Your task to perform on an android device: find photos in the google photos app Image 0: 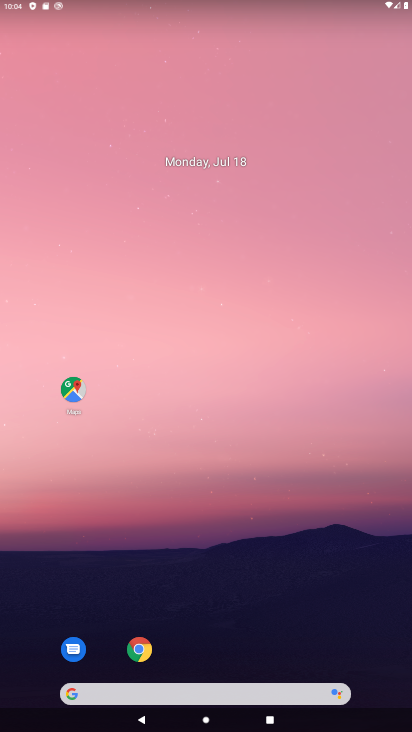
Step 0: drag from (230, 583) to (315, 135)
Your task to perform on an android device: find photos in the google photos app Image 1: 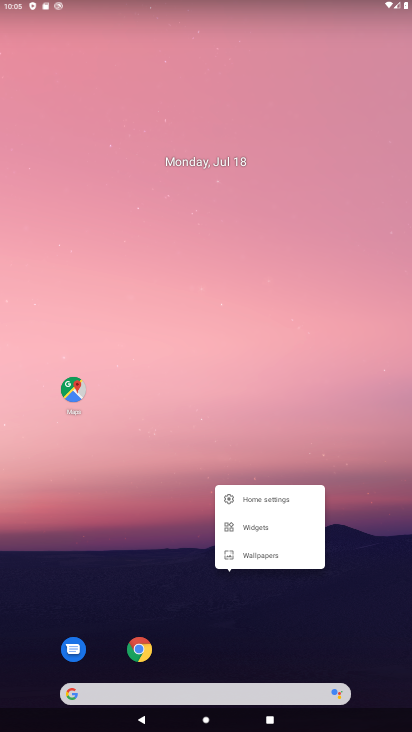
Step 1: click (92, 463)
Your task to perform on an android device: find photos in the google photos app Image 2: 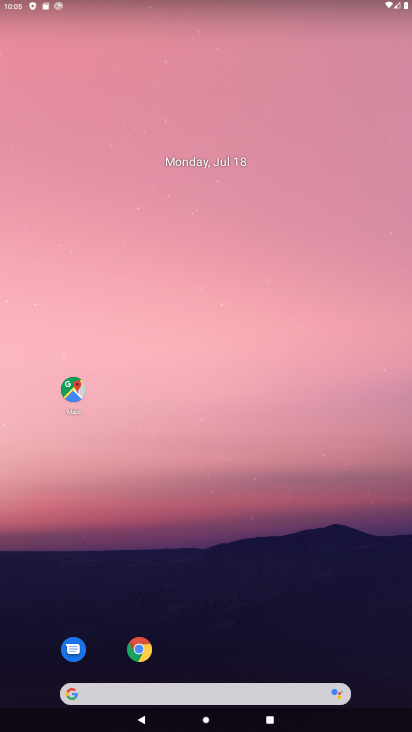
Step 2: drag from (241, 520) to (203, 129)
Your task to perform on an android device: find photos in the google photos app Image 3: 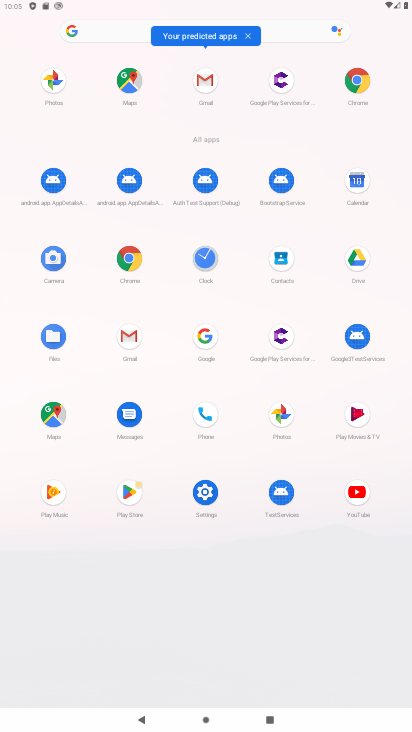
Step 3: click (48, 88)
Your task to perform on an android device: find photos in the google photos app Image 4: 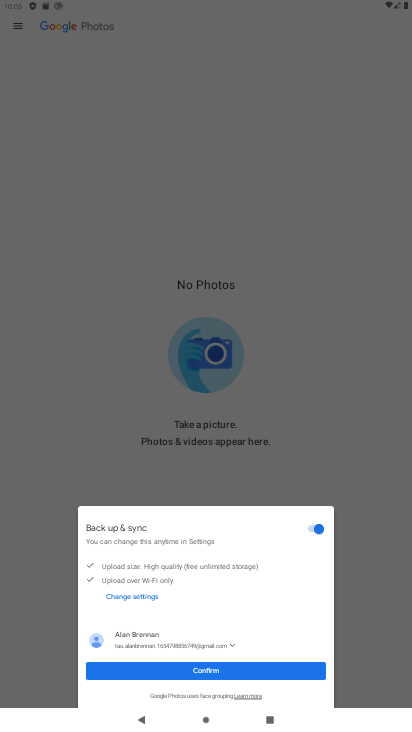
Step 4: click (199, 677)
Your task to perform on an android device: find photos in the google photos app Image 5: 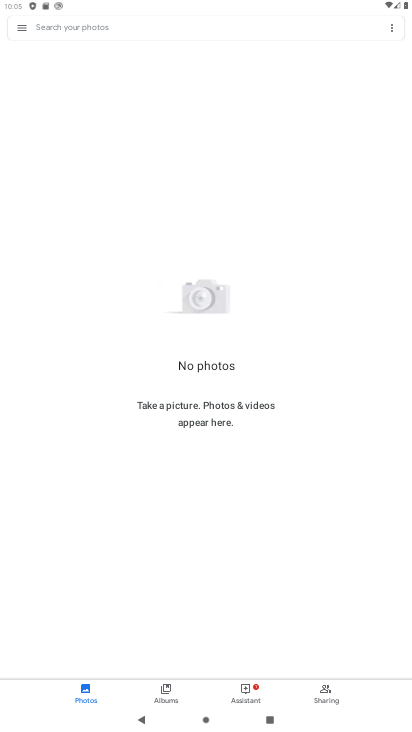
Step 5: click (79, 17)
Your task to perform on an android device: find photos in the google photos app Image 6: 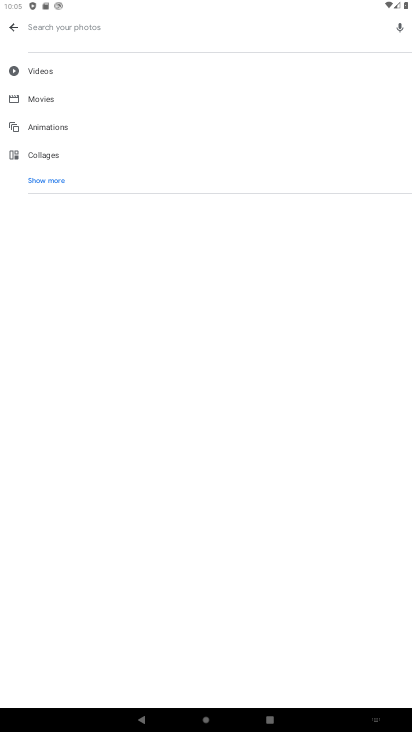
Step 6: click (71, 31)
Your task to perform on an android device: find photos in the google photos app Image 7: 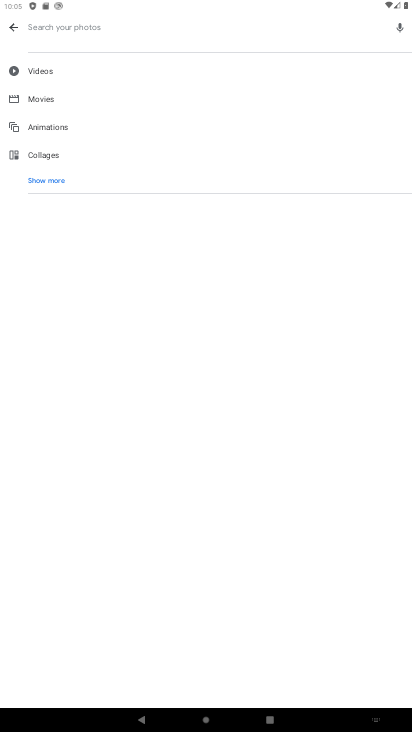
Step 7: task complete